Your task to perform on an android device: show emergency info Image 0: 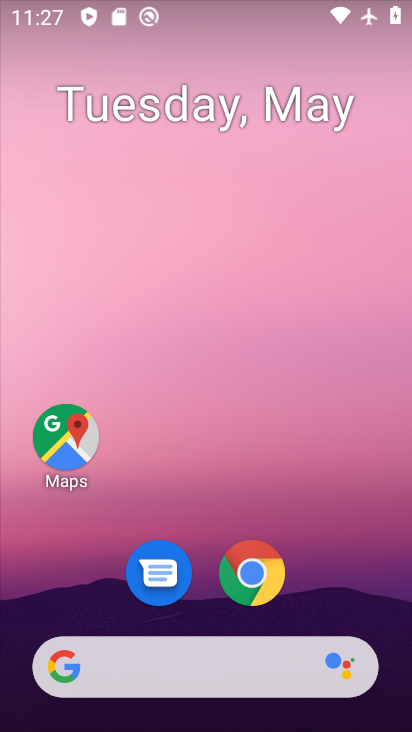
Step 0: drag from (175, 522) to (201, 265)
Your task to perform on an android device: show emergency info Image 1: 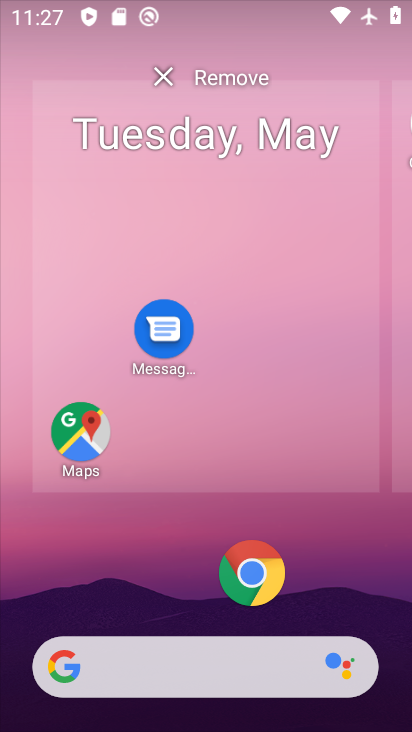
Step 1: click (220, 280)
Your task to perform on an android device: show emergency info Image 2: 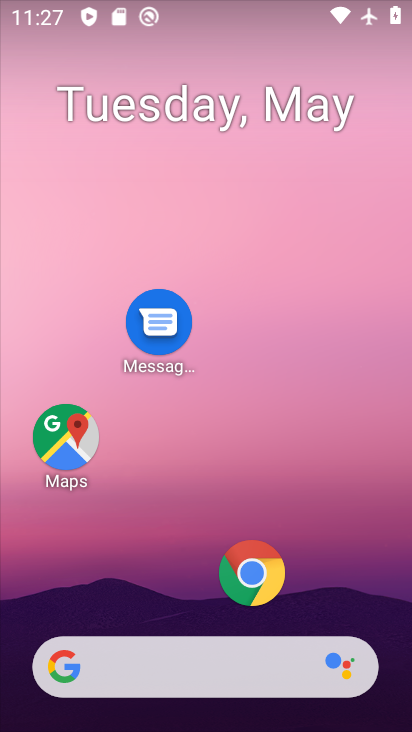
Step 2: drag from (163, 632) to (171, 208)
Your task to perform on an android device: show emergency info Image 3: 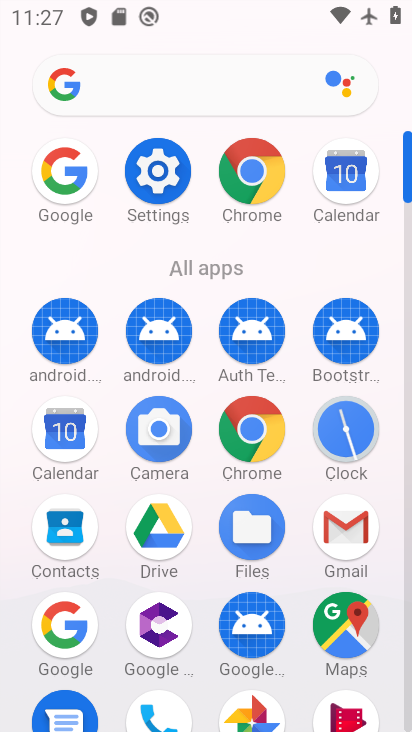
Step 3: click (149, 168)
Your task to perform on an android device: show emergency info Image 4: 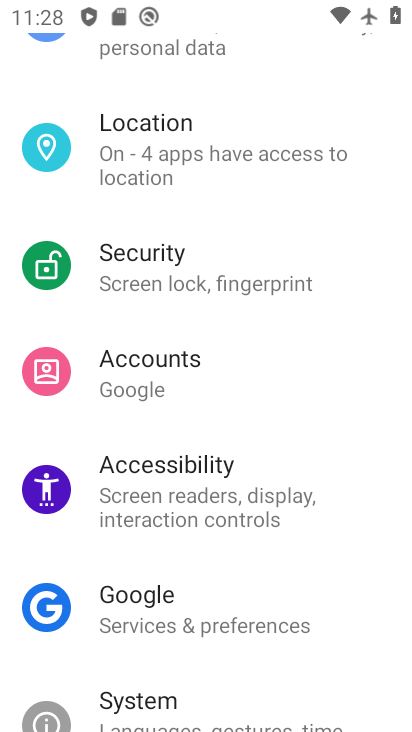
Step 4: drag from (182, 714) to (182, 406)
Your task to perform on an android device: show emergency info Image 5: 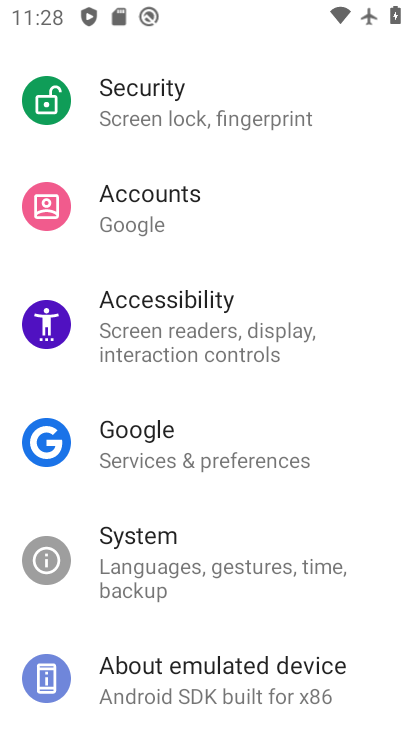
Step 5: drag from (190, 524) to (191, 316)
Your task to perform on an android device: show emergency info Image 6: 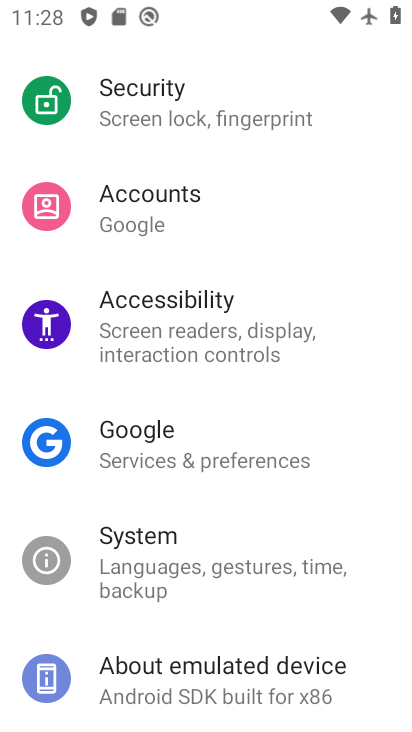
Step 6: click (187, 669)
Your task to perform on an android device: show emergency info Image 7: 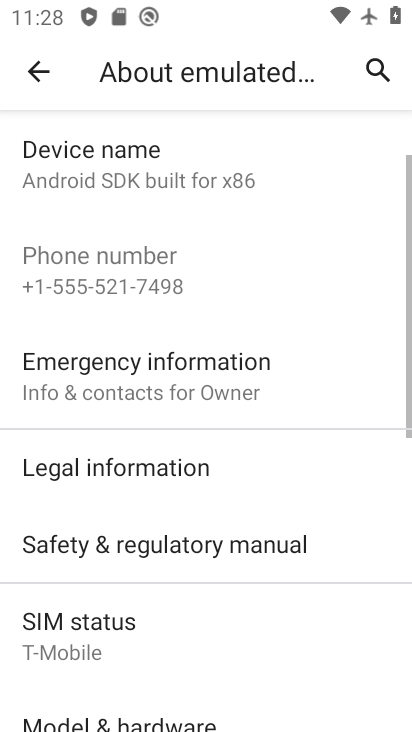
Step 7: drag from (127, 695) to (162, 273)
Your task to perform on an android device: show emergency info Image 8: 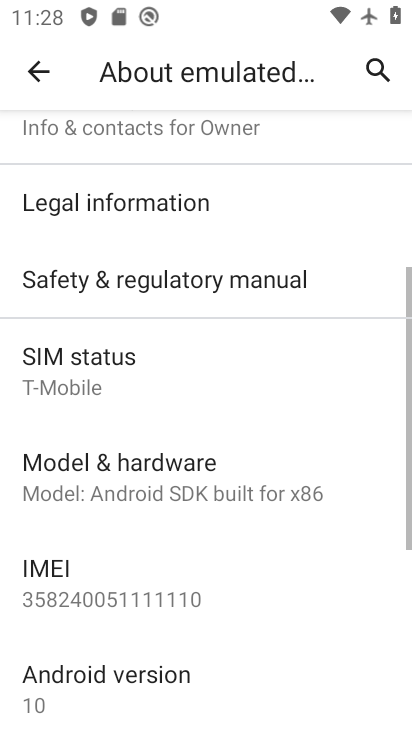
Step 8: click (138, 247)
Your task to perform on an android device: show emergency info Image 9: 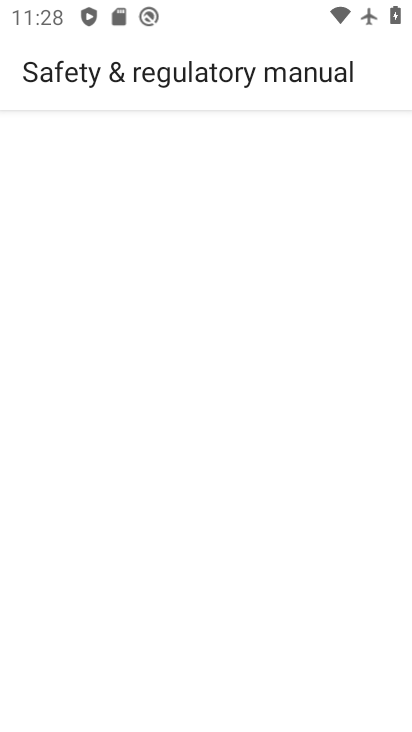
Step 9: press back button
Your task to perform on an android device: show emergency info Image 10: 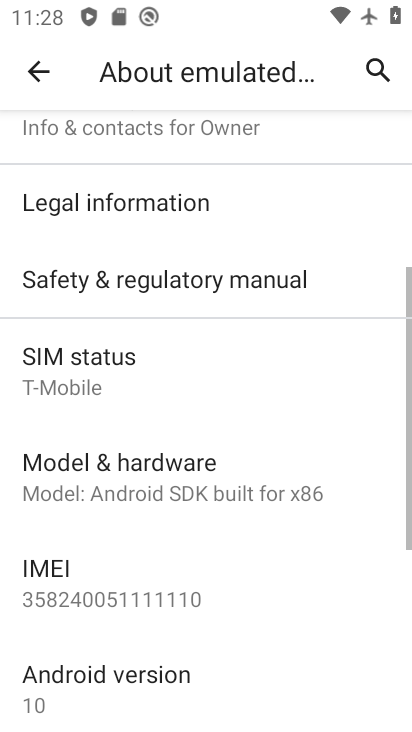
Step 10: drag from (215, 173) to (201, 498)
Your task to perform on an android device: show emergency info Image 11: 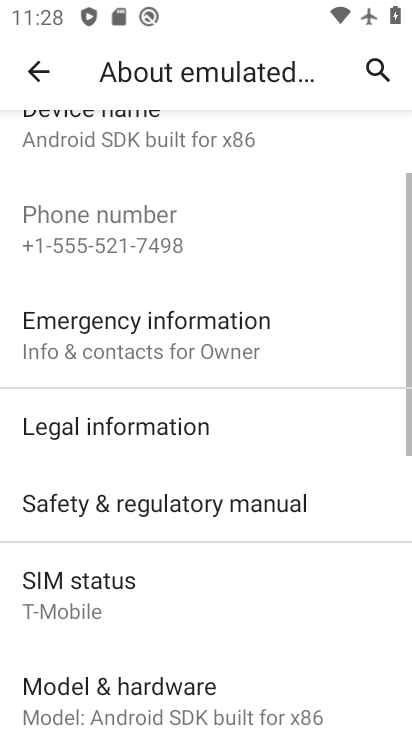
Step 11: click (196, 336)
Your task to perform on an android device: show emergency info Image 12: 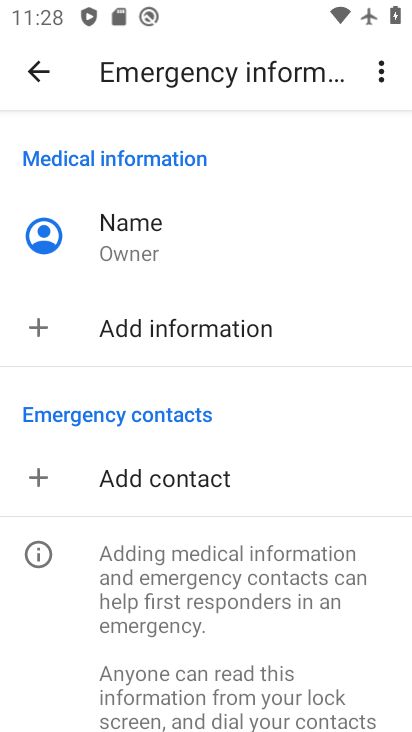
Step 12: task complete